Your task to perform on an android device: turn off data saver in the chrome app Image 0: 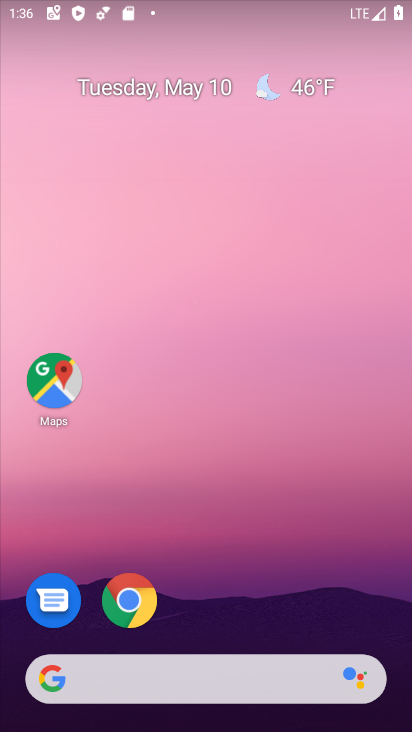
Step 0: click (122, 610)
Your task to perform on an android device: turn off data saver in the chrome app Image 1: 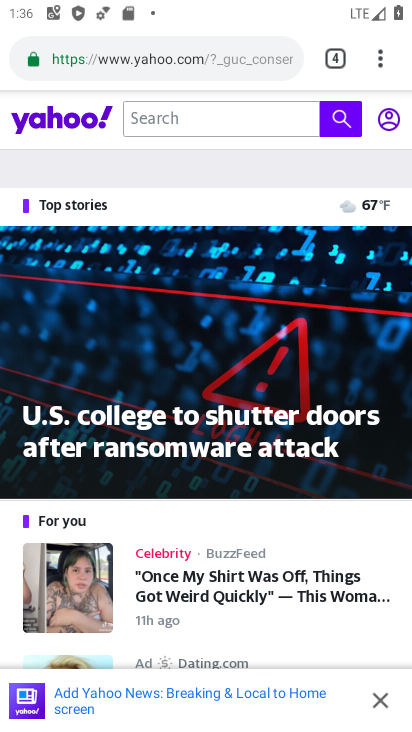
Step 1: drag from (382, 69) to (207, 633)
Your task to perform on an android device: turn off data saver in the chrome app Image 2: 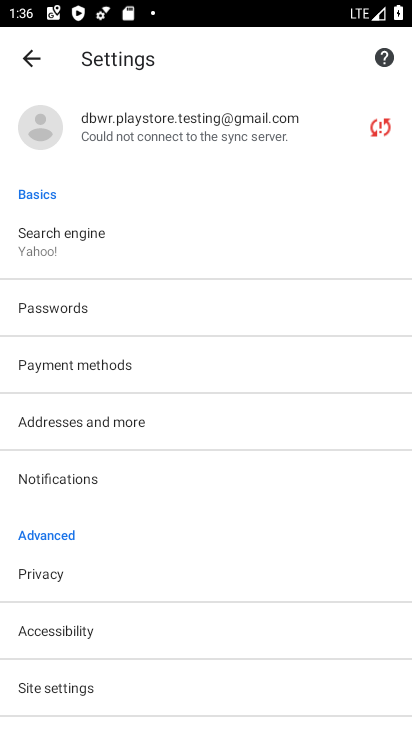
Step 2: drag from (90, 593) to (247, 209)
Your task to perform on an android device: turn off data saver in the chrome app Image 3: 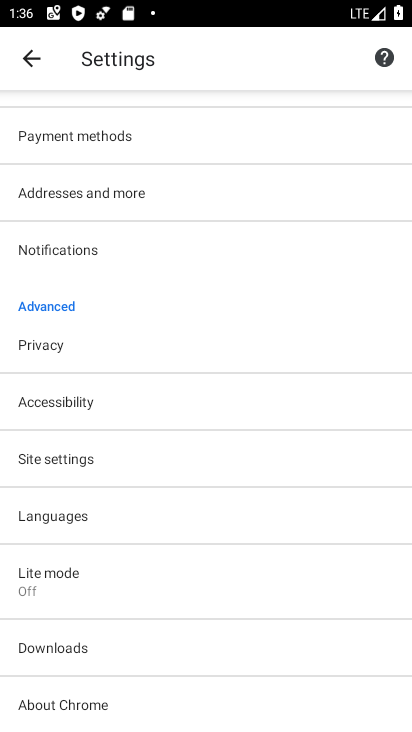
Step 3: click (98, 574)
Your task to perform on an android device: turn off data saver in the chrome app Image 4: 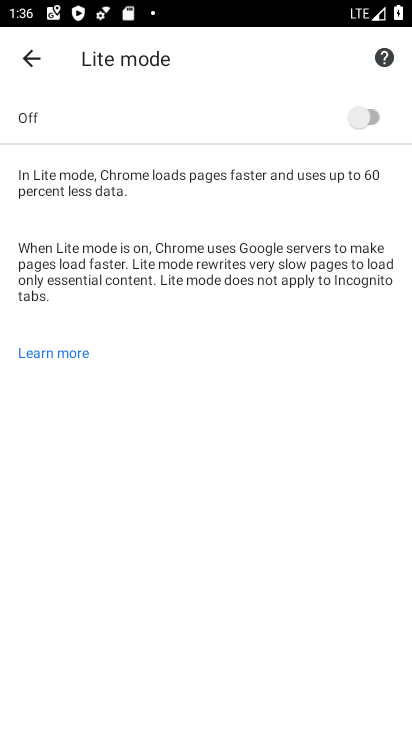
Step 4: task complete